Your task to perform on an android device: uninstall "Google Play Music" Image 0: 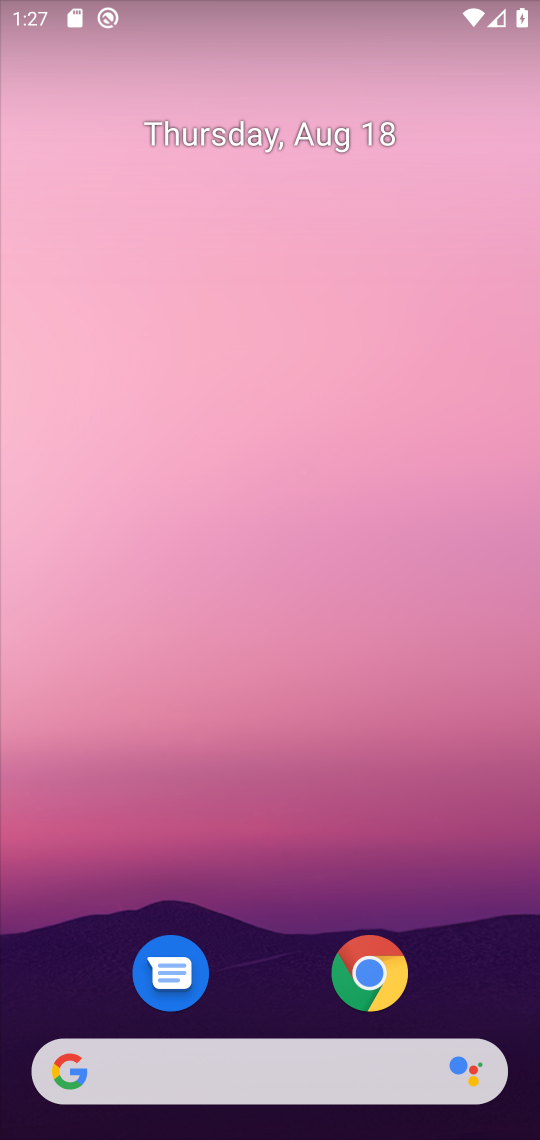
Step 0: drag from (292, 1019) to (279, 0)
Your task to perform on an android device: uninstall "Google Play Music" Image 1: 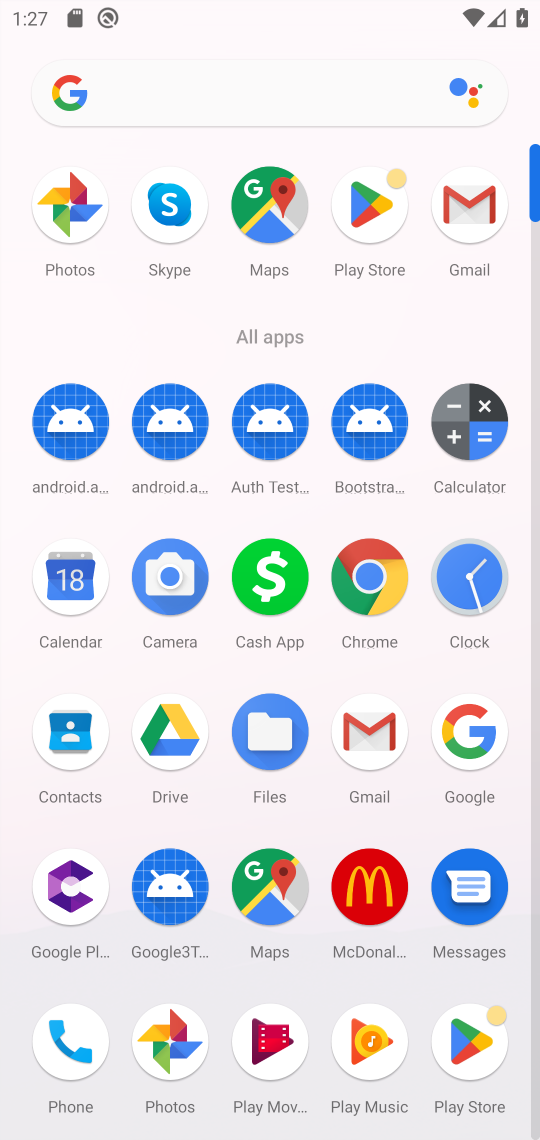
Step 1: click (373, 227)
Your task to perform on an android device: uninstall "Google Play Music" Image 2: 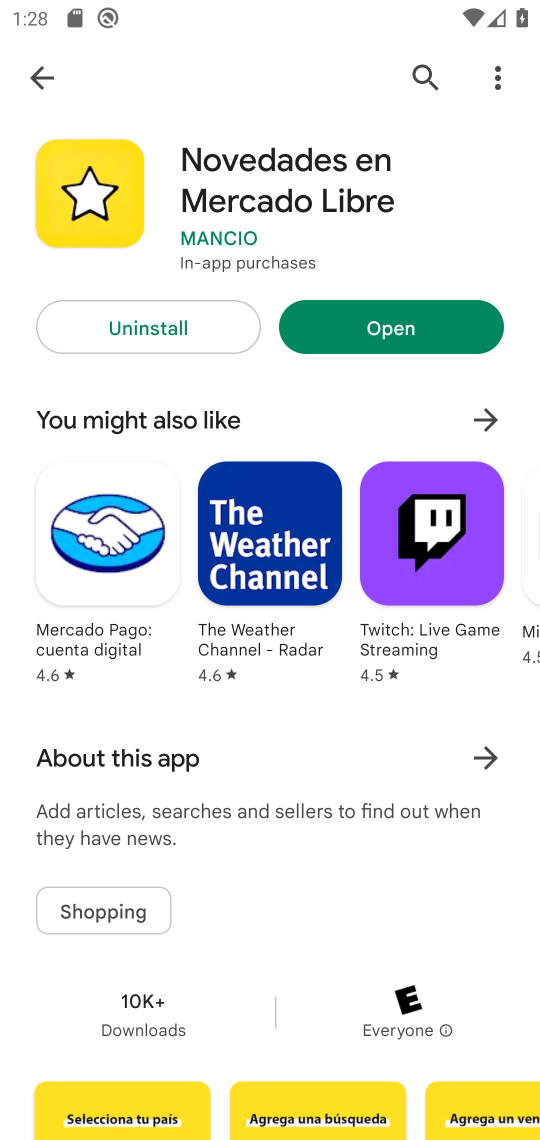
Step 2: click (399, 95)
Your task to perform on an android device: uninstall "Google Play Music" Image 3: 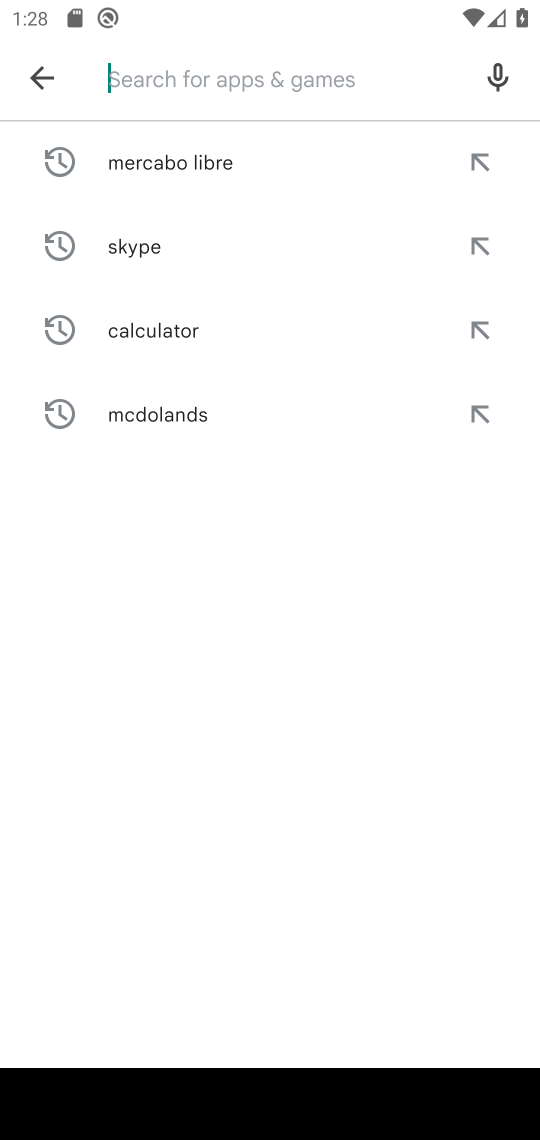
Step 3: click (428, 76)
Your task to perform on an android device: uninstall "Google Play Music" Image 4: 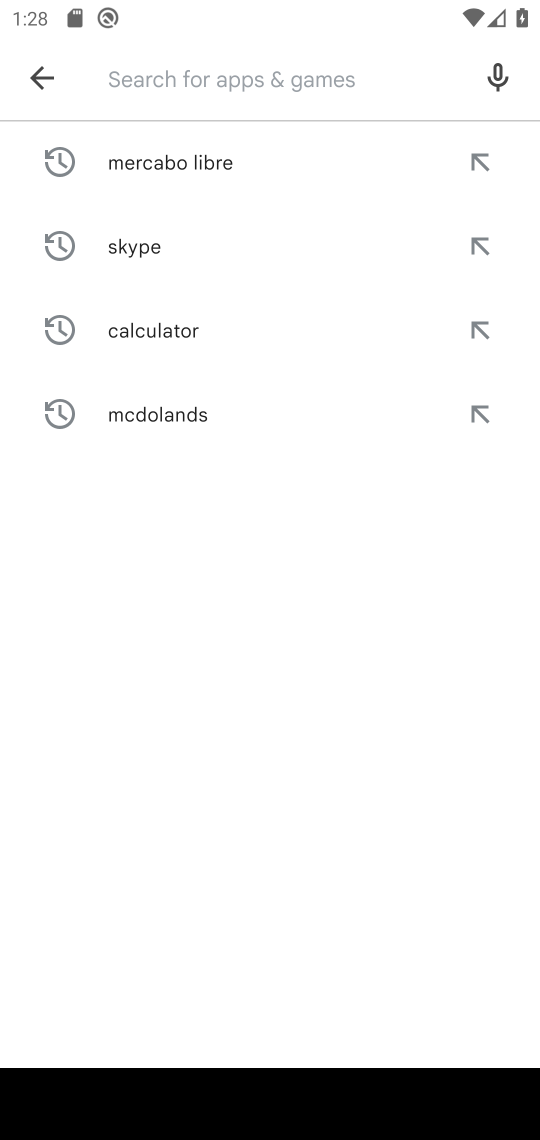
Step 4: type "google play service"
Your task to perform on an android device: uninstall "Google Play Music" Image 5: 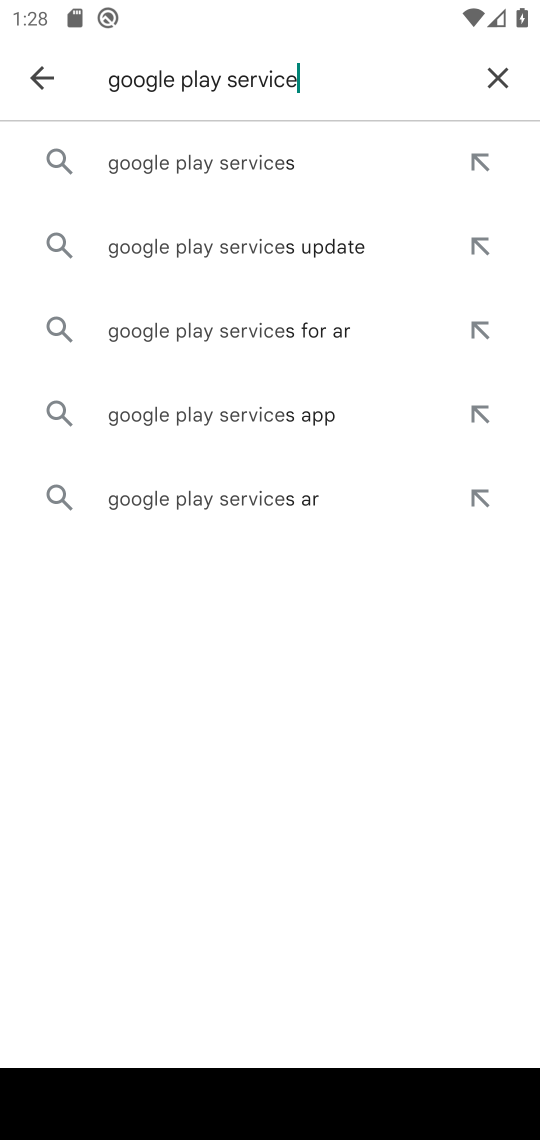
Step 5: click (223, 185)
Your task to perform on an android device: uninstall "Google Play Music" Image 6: 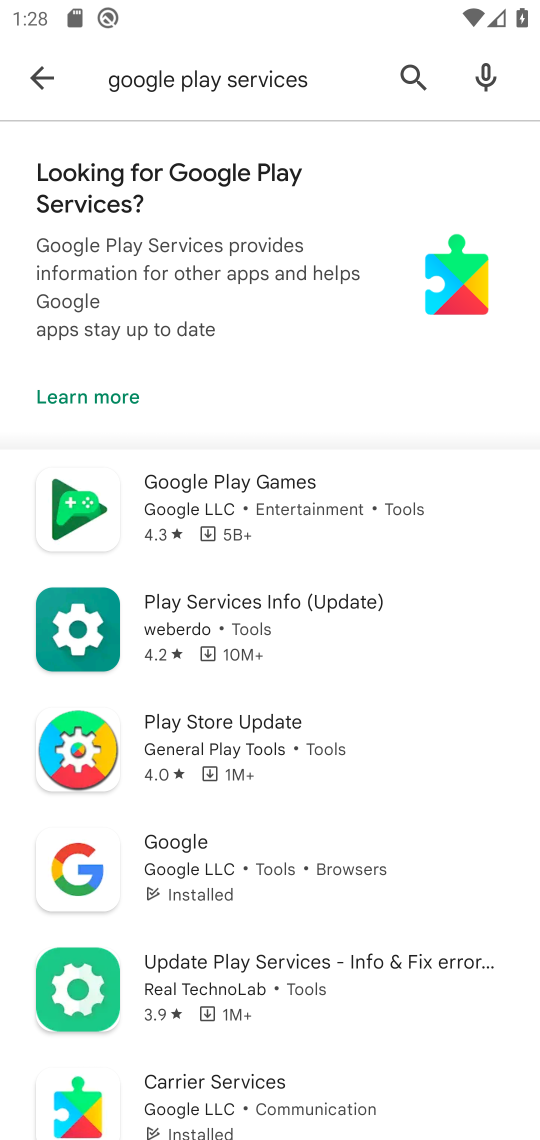
Step 6: click (247, 475)
Your task to perform on an android device: uninstall "Google Play Music" Image 7: 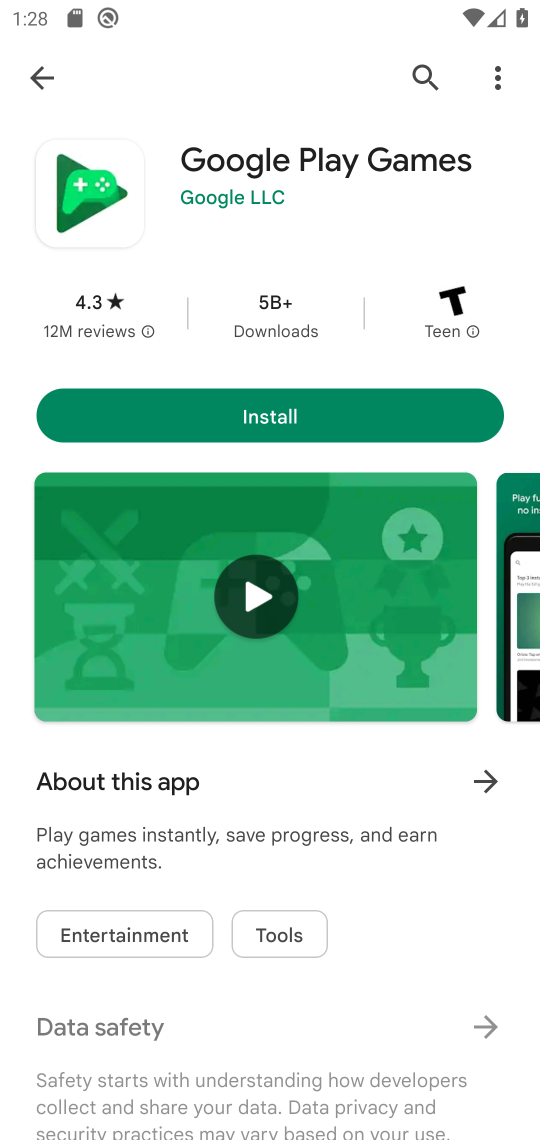
Step 7: task complete